Your task to perform on an android device: turn on airplane mode Image 0: 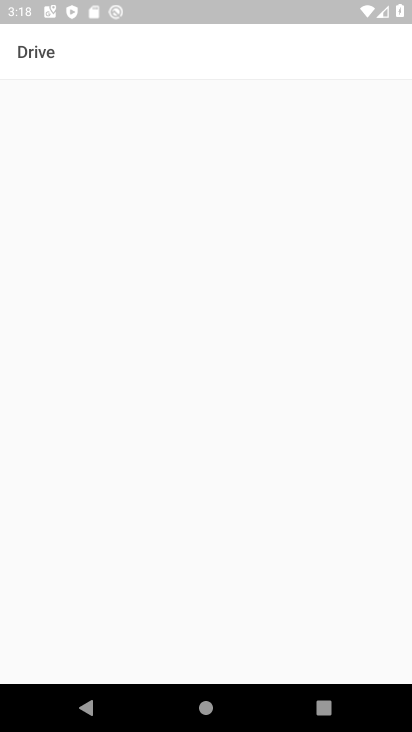
Step 0: press home button
Your task to perform on an android device: turn on airplane mode Image 1: 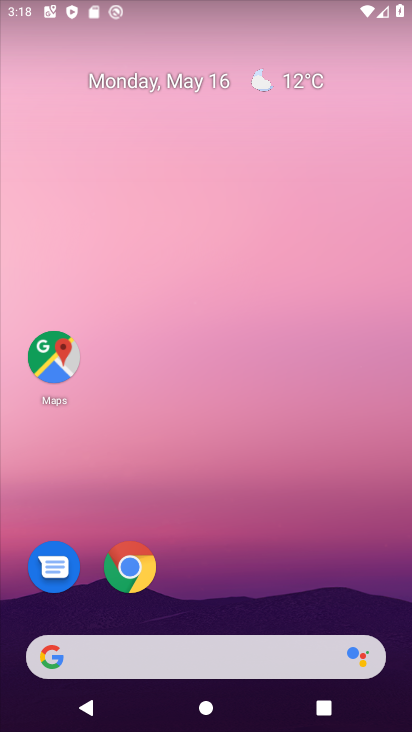
Step 1: drag from (275, 8) to (311, 497)
Your task to perform on an android device: turn on airplane mode Image 2: 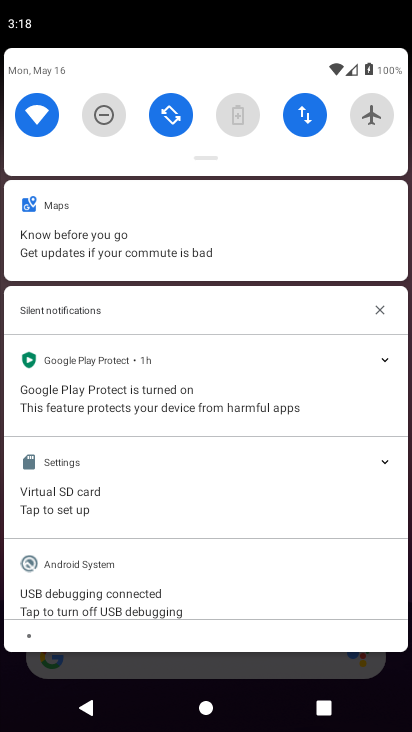
Step 2: click (356, 110)
Your task to perform on an android device: turn on airplane mode Image 3: 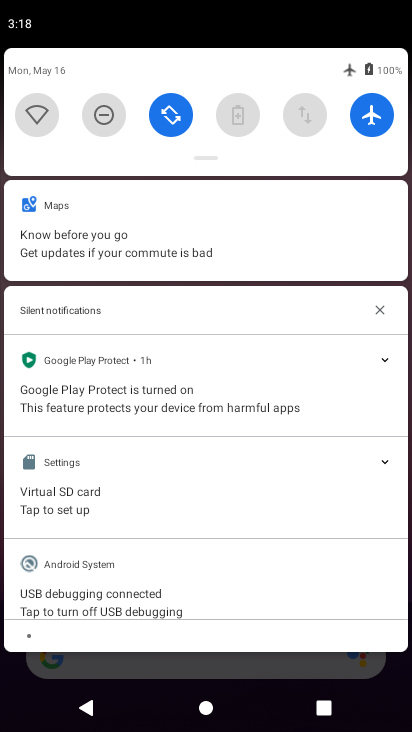
Step 3: task complete